Your task to perform on an android device: turn off picture-in-picture Image 0: 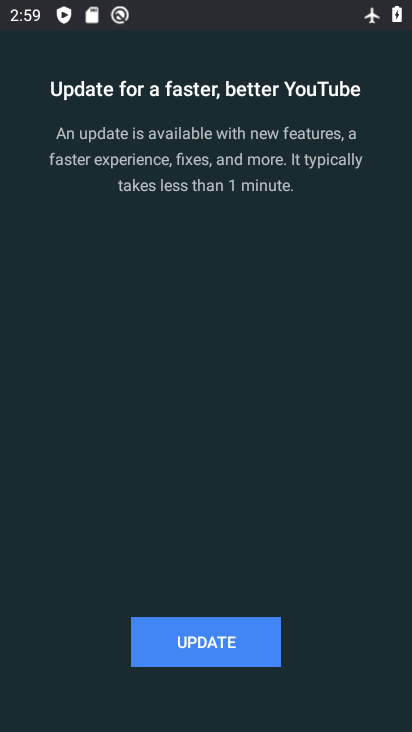
Step 0: press home button
Your task to perform on an android device: turn off picture-in-picture Image 1: 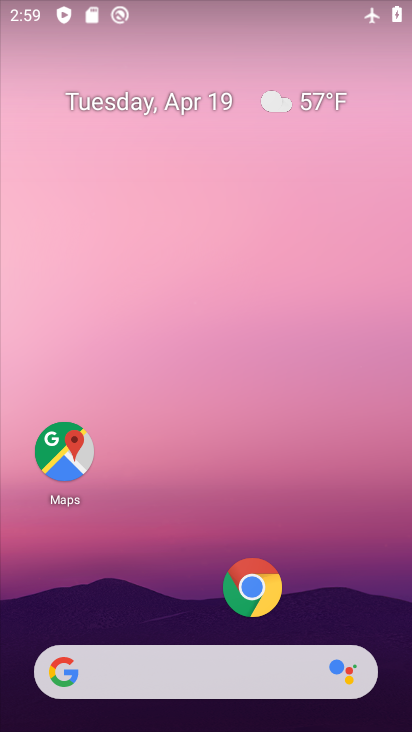
Step 1: click (246, 579)
Your task to perform on an android device: turn off picture-in-picture Image 2: 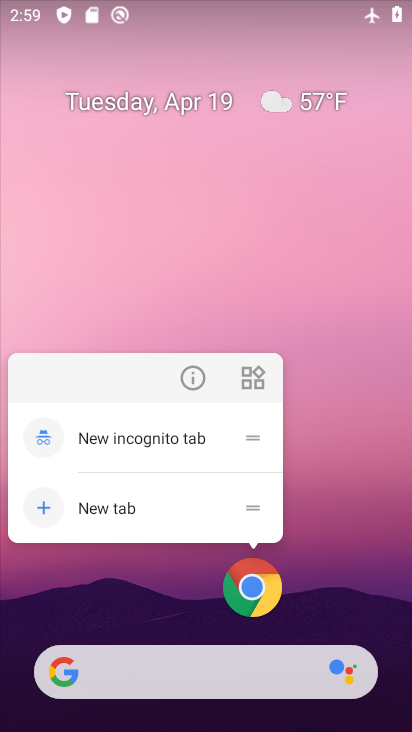
Step 2: click (190, 369)
Your task to perform on an android device: turn off picture-in-picture Image 3: 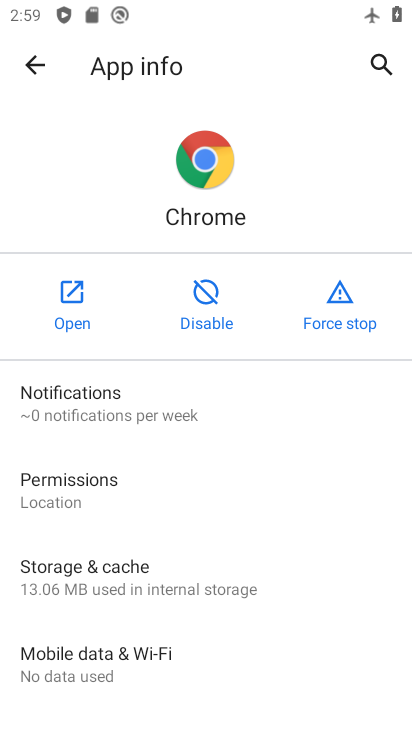
Step 3: drag from (115, 603) to (218, 148)
Your task to perform on an android device: turn off picture-in-picture Image 4: 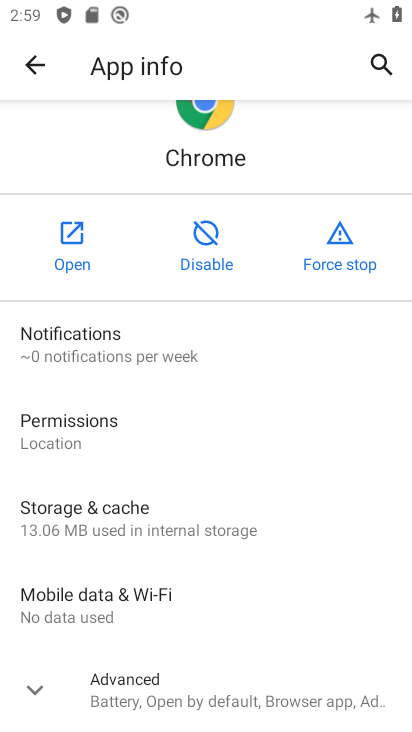
Step 4: click (142, 681)
Your task to perform on an android device: turn off picture-in-picture Image 5: 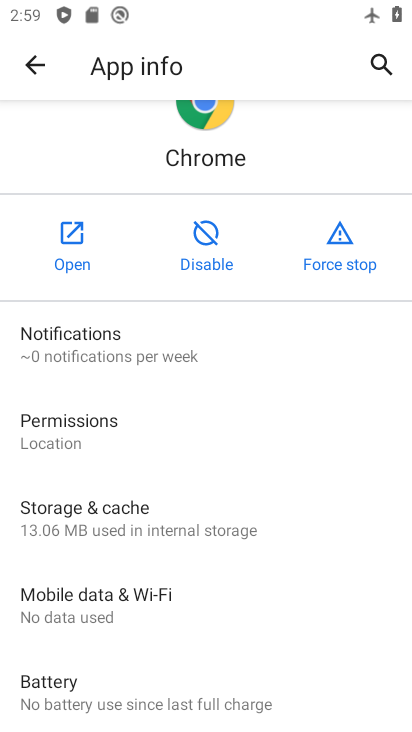
Step 5: drag from (141, 643) to (263, 238)
Your task to perform on an android device: turn off picture-in-picture Image 6: 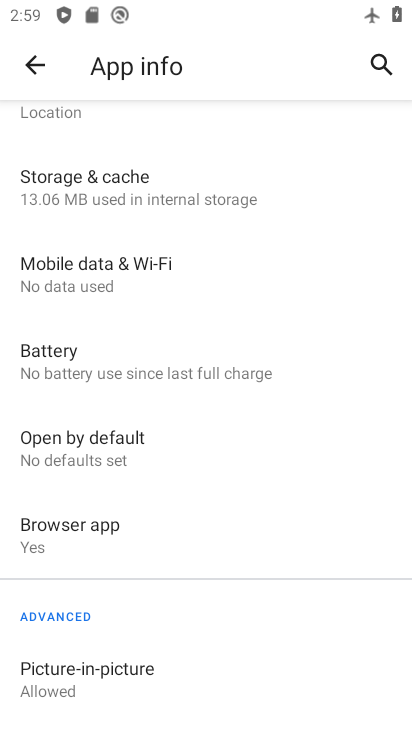
Step 6: drag from (116, 587) to (159, 329)
Your task to perform on an android device: turn off picture-in-picture Image 7: 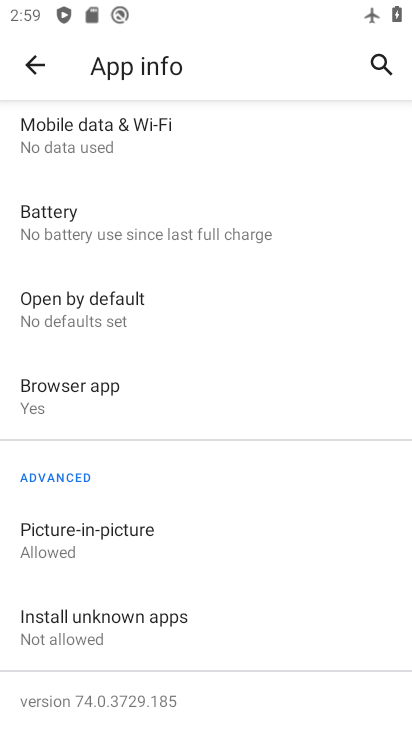
Step 7: click (69, 548)
Your task to perform on an android device: turn off picture-in-picture Image 8: 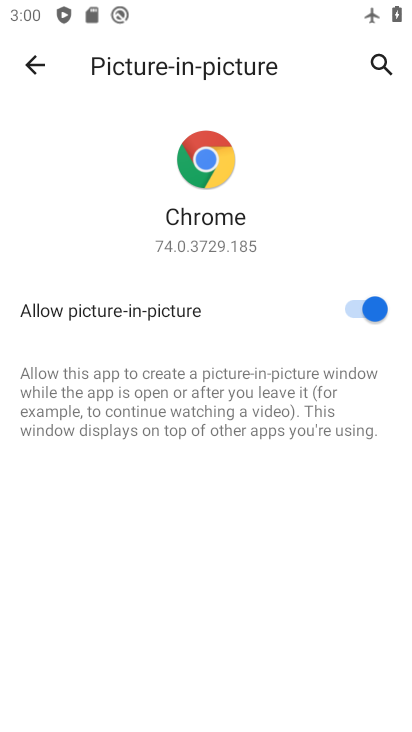
Step 8: click (343, 315)
Your task to perform on an android device: turn off picture-in-picture Image 9: 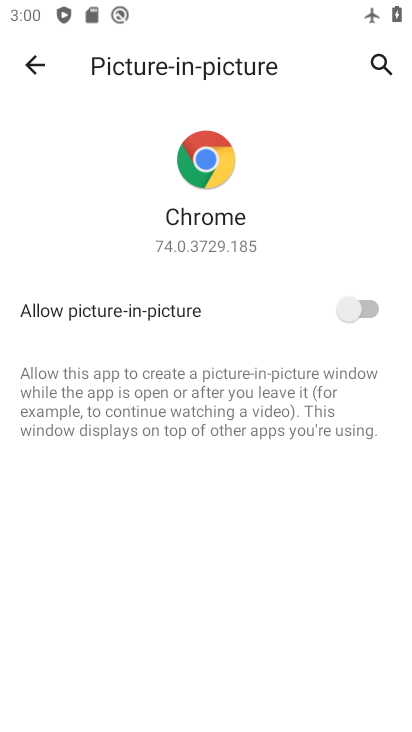
Step 9: task complete